Your task to perform on an android device: set default search engine in the chrome app Image 0: 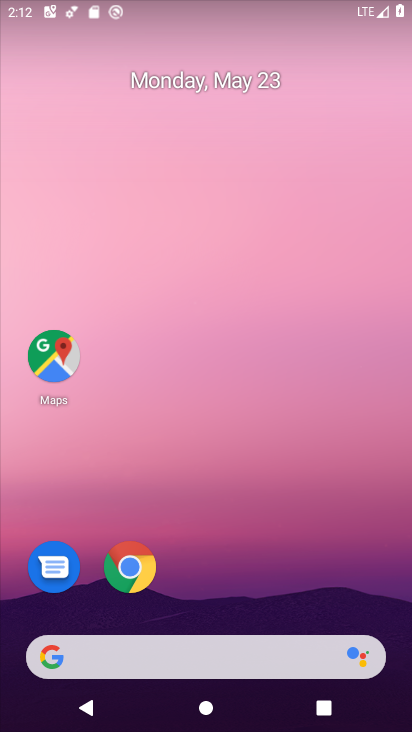
Step 0: drag from (180, 582) to (232, 296)
Your task to perform on an android device: set default search engine in the chrome app Image 1: 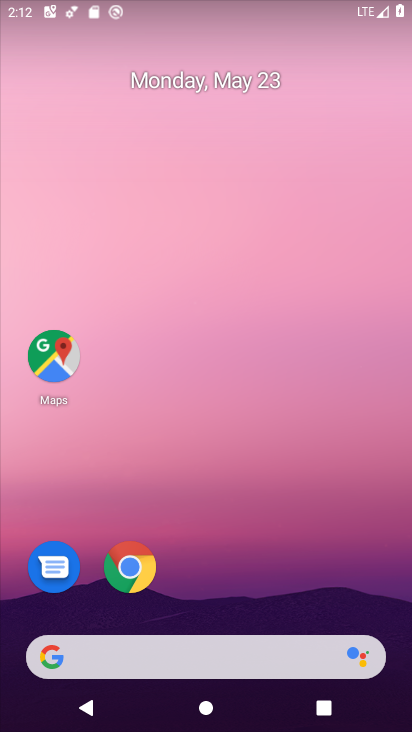
Step 1: drag from (200, 601) to (254, 175)
Your task to perform on an android device: set default search engine in the chrome app Image 2: 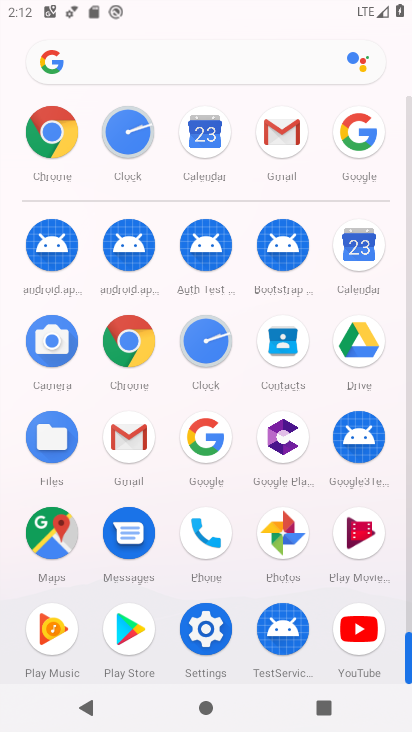
Step 2: click (138, 358)
Your task to perform on an android device: set default search engine in the chrome app Image 3: 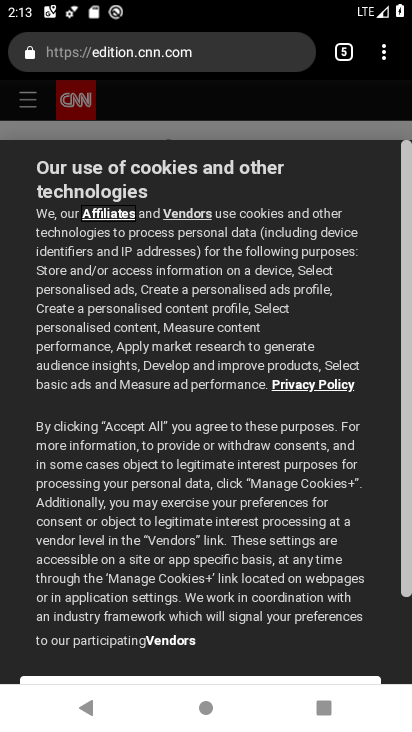
Step 3: click (395, 55)
Your task to perform on an android device: set default search engine in the chrome app Image 4: 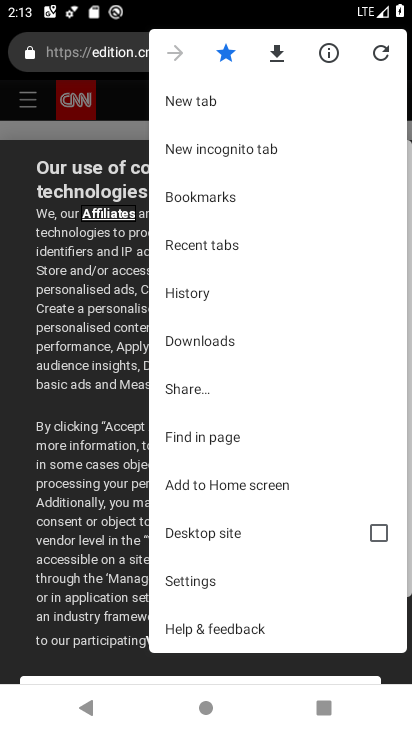
Step 4: click (218, 582)
Your task to perform on an android device: set default search engine in the chrome app Image 5: 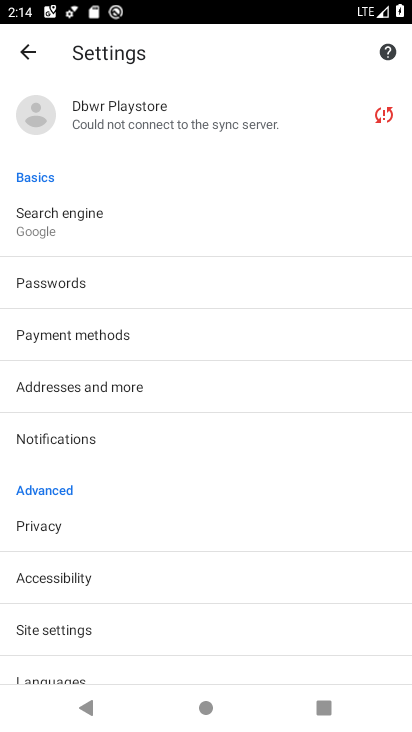
Step 5: click (149, 232)
Your task to perform on an android device: set default search engine in the chrome app Image 6: 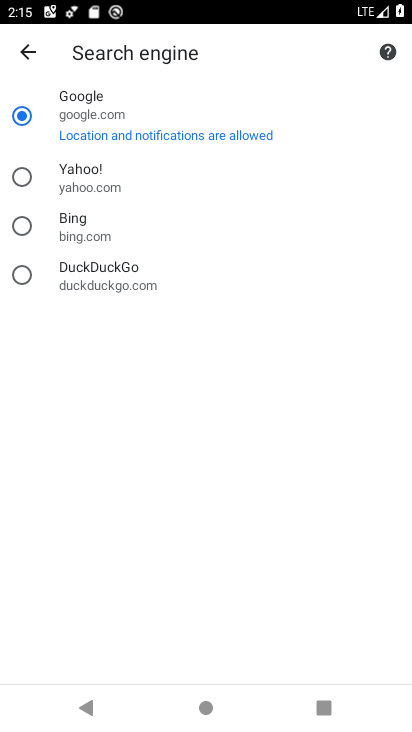
Step 6: task complete